Your task to perform on an android device: Open privacy settings Image 0: 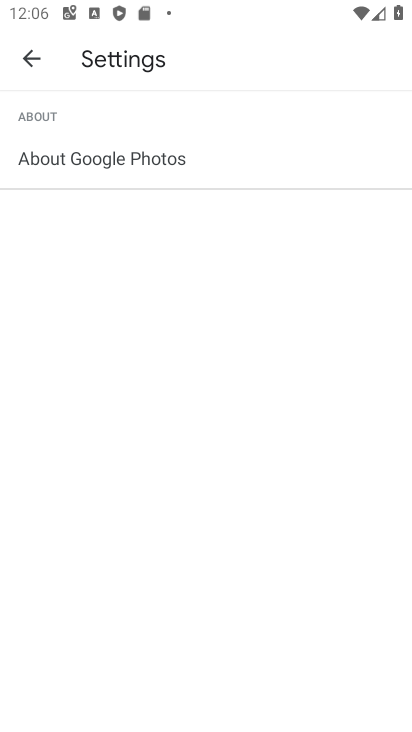
Step 0: click (254, 594)
Your task to perform on an android device: Open privacy settings Image 1: 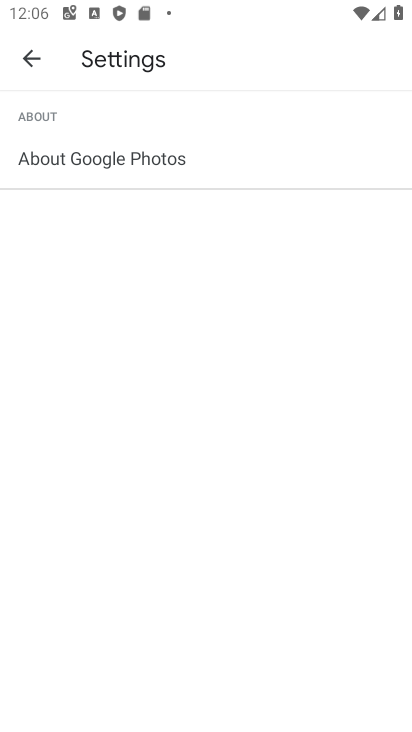
Step 1: press home button
Your task to perform on an android device: Open privacy settings Image 2: 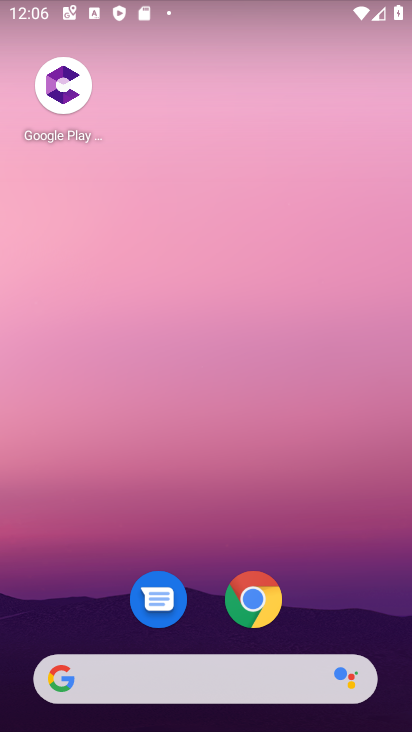
Step 2: drag from (342, 567) to (281, 17)
Your task to perform on an android device: Open privacy settings Image 3: 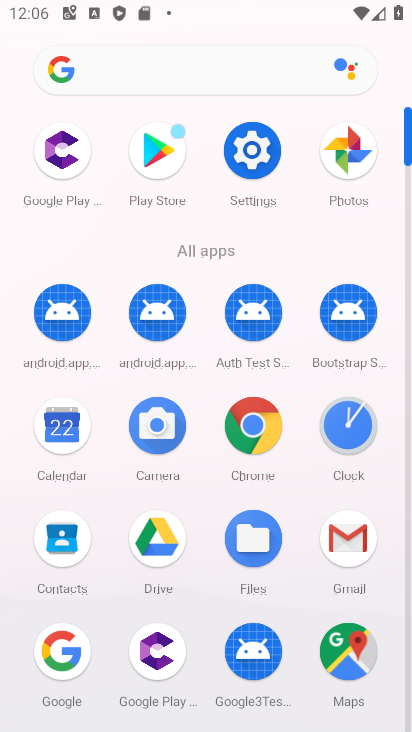
Step 3: click (256, 155)
Your task to perform on an android device: Open privacy settings Image 4: 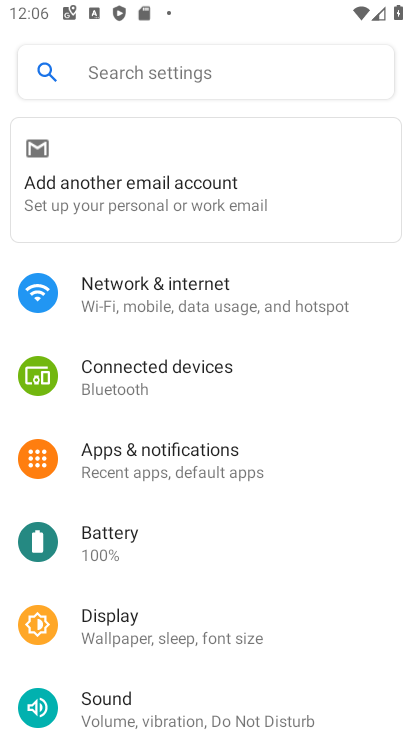
Step 4: drag from (218, 551) to (229, 202)
Your task to perform on an android device: Open privacy settings Image 5: 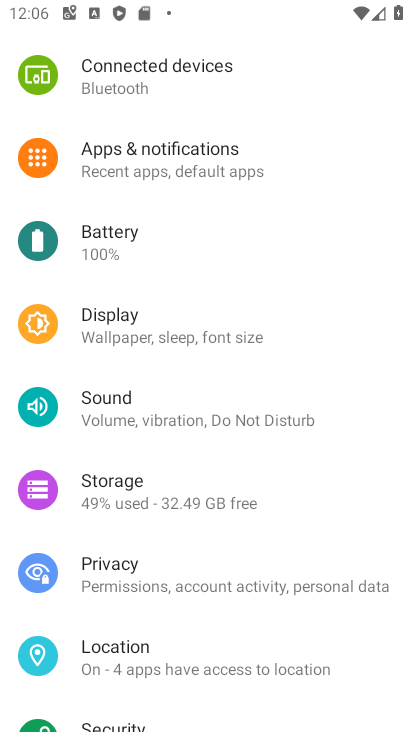
Step 5: click (188, 572)
Your task to perform on an android device: Open privacy settings Image 6: 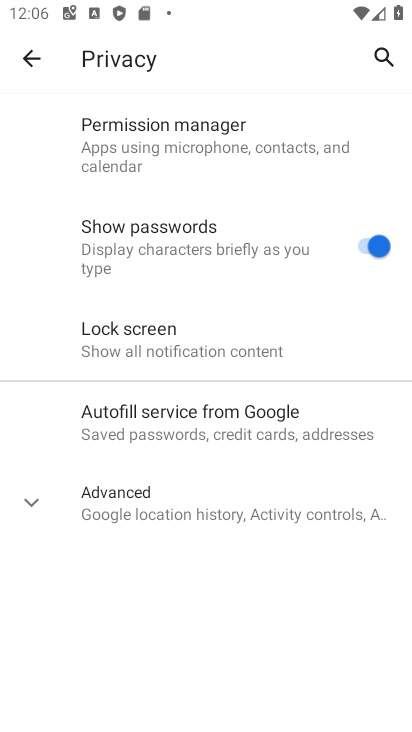
Step 6: task complete